Your task to perform on an android device: Search for Italian restaurants on Maps Image 0: 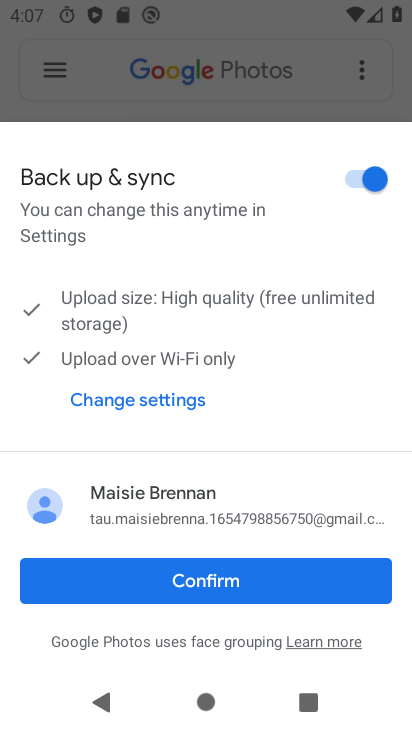
Step 0: press home button
Your task to perform on an android device: Search for Italian restaurants on Maps Image 1: 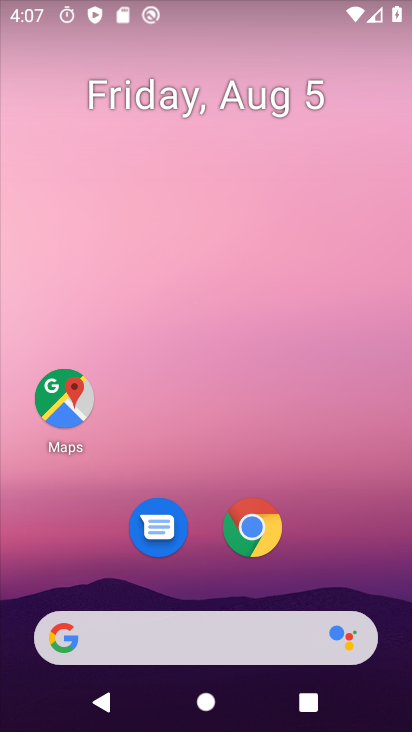
Step 1: click (66, 394)
Your task to perform on an android device: Search for Italian restaurants on Maps Image 2: 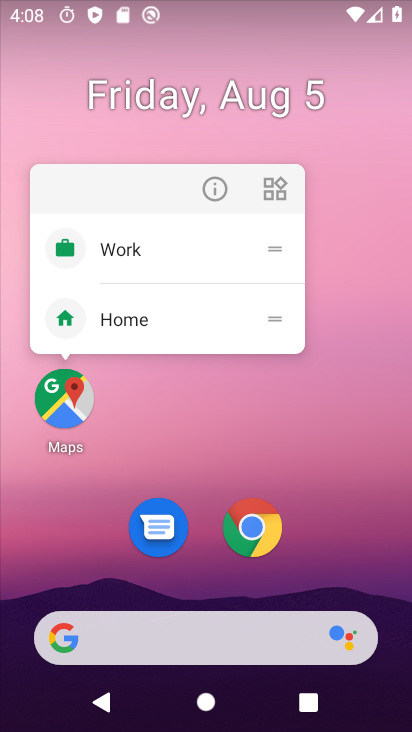
Step 2: click (62, 398)
Your task to perform on an android device: Search for Italian restaurants on Maps Image 3: 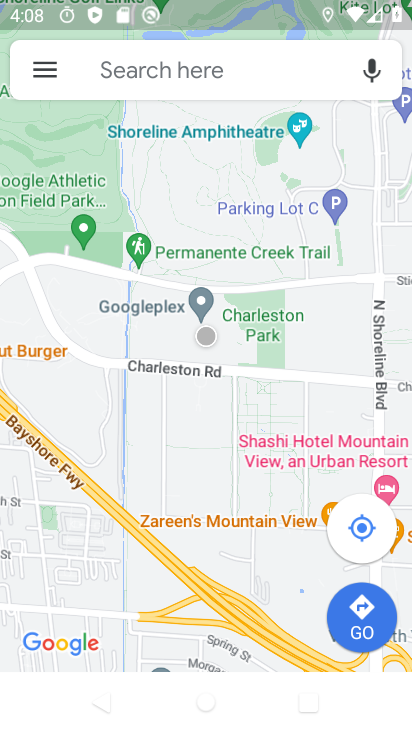
Step 3: click (124, 66)
Your task to perform on an android device: Search for Italian restaurants on Maps Image 4: 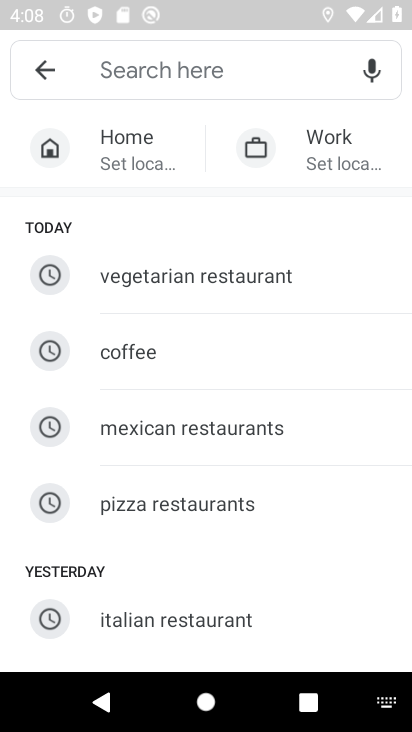
Step 4: click (155, 626)
Your task to perform on an android device: Search for Italian restaurants on Maps Image 5: 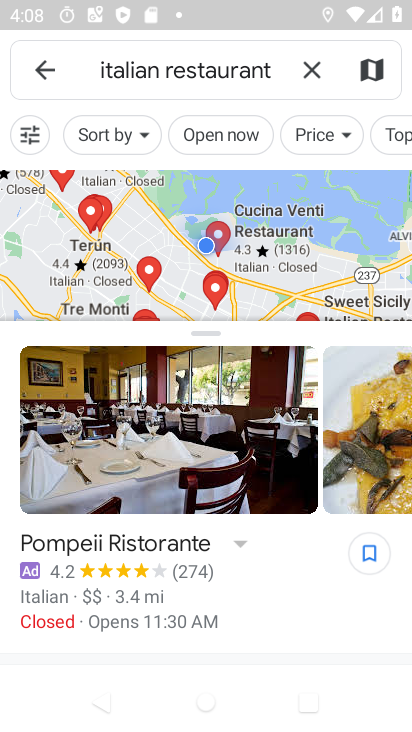
Step 5: task complete